Your task to perform on an android device: add a label to a message in the gmail app Image 0: 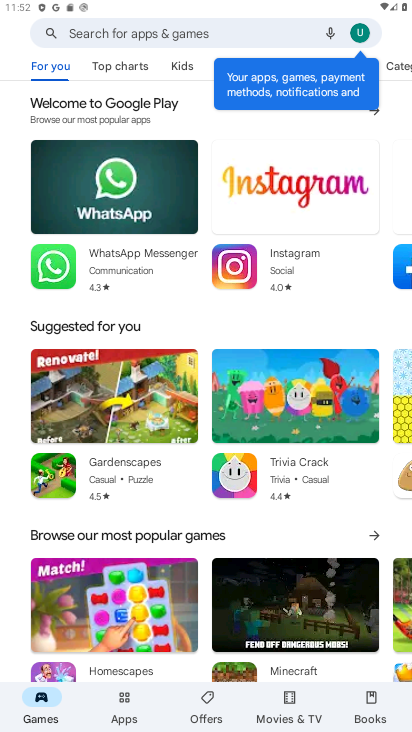
Step 0: press home button
Your task to perform on an android device: add a label to a message in the gmail app Image 1: 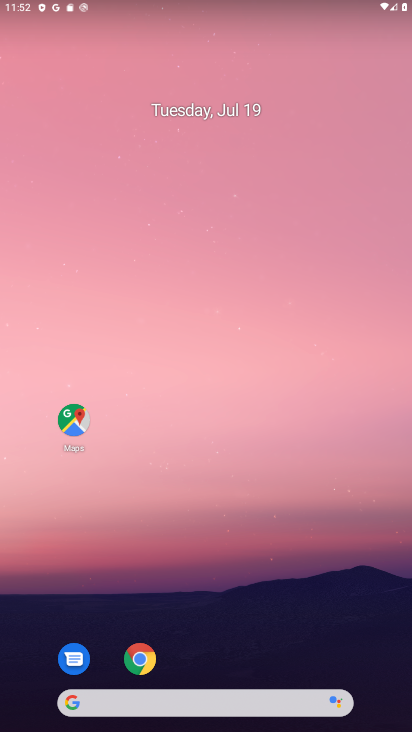
Step 1: drag from (212, 663) to (212, 70)
Your task to perform on an android device: add a label to a message in the gmail app Image 2: 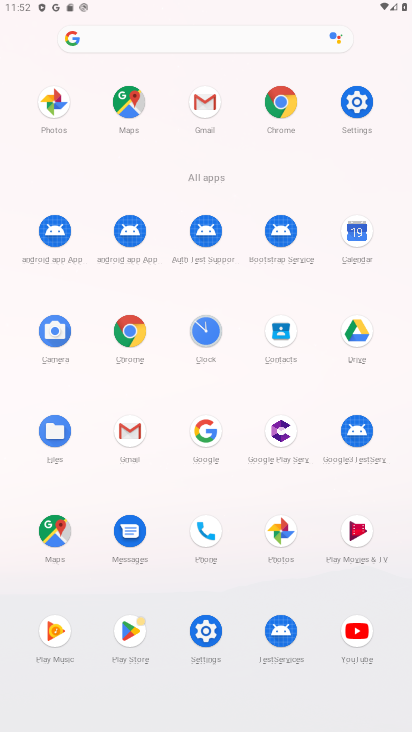
Step 2: click (203, 87)
Your task to perform on an android device: add a label to a message in the gmail app Image 3: 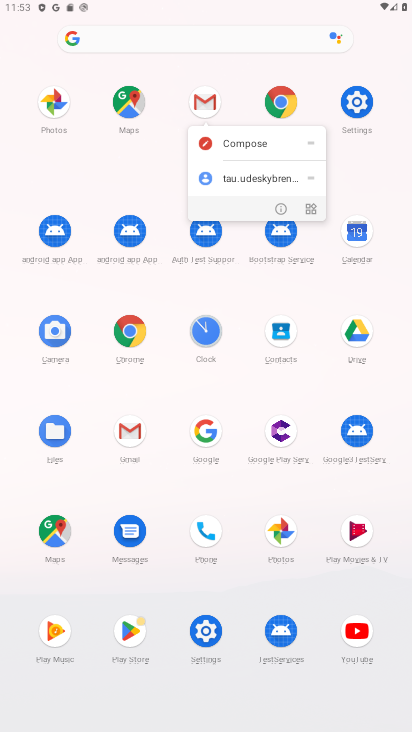
Step 3: click (132, 425)
Your task to perform on an android device: add a label to a message in the gmail app Image 4: 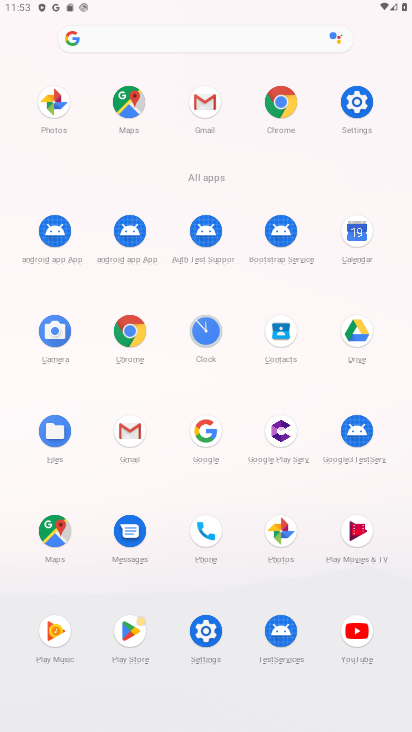
Step 4: click (130, 427)
Your task to perform on an android device: add a label to a message in the gmail app Image 5: 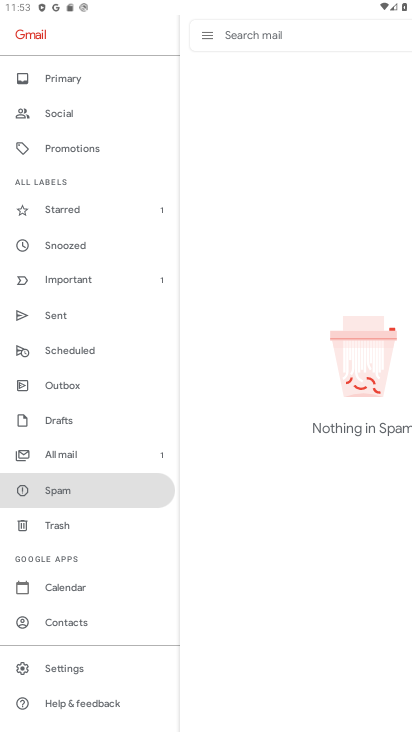
Step 5: task complete